Your task to perform on an android device: Open the stopwatch Image 0: 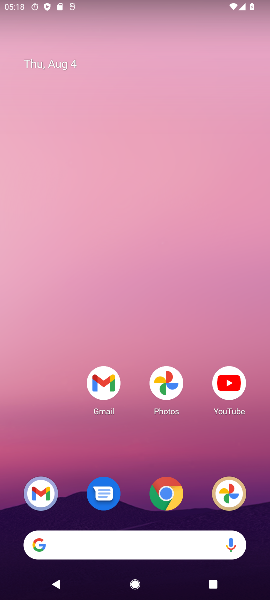
Step 0: drag from (21, 566) to (202, 100)
Your task to perform on an android device: Open the stopwatch Image 1: 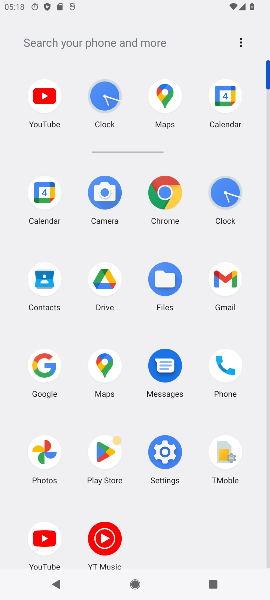
Step 1: click (229, 201)
Your task to perform on an android device: Open the stopwatch Image 2: 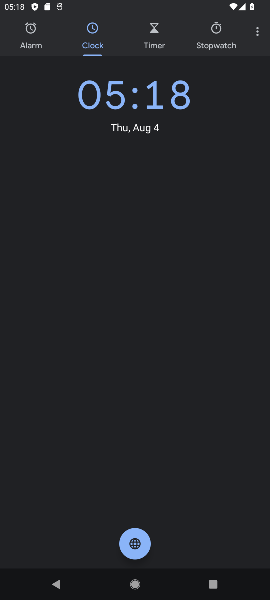
Step 2: click (215, 34)
Your task to perform on an android device: Open the stopwatch Image 3: 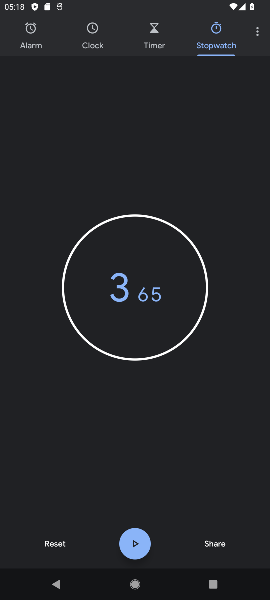
Step 3: click (133, 548)
Your task to perform on an android device: Open the stopwatch Image 4: 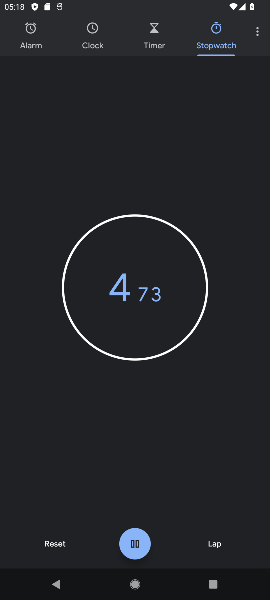
Step 4: click (131, 547)
Your task to perform on an android device: Open the stopwatch Image 5: 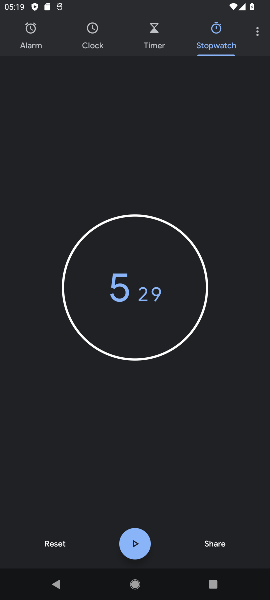
Step 5: task complete